Your task to perform on an android device: check out phone information Image 0: 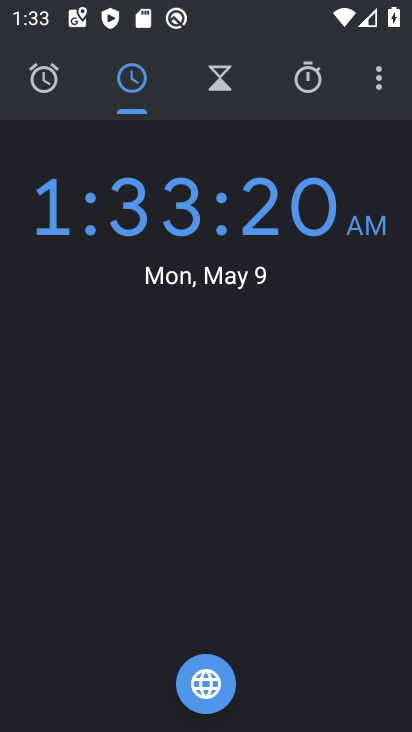
Step 0: press home button
Your task to perform on an android device: check out phone information Image 1: 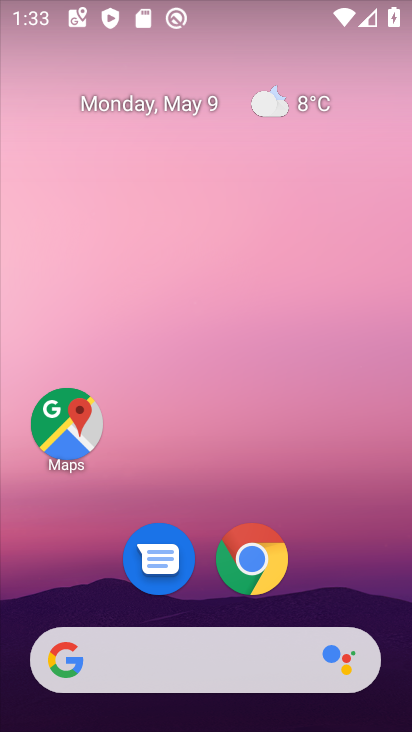
Step 1: drag from (298, 480) to (235, 46)
Your task to perform on an android device: check out phone information Image 2: 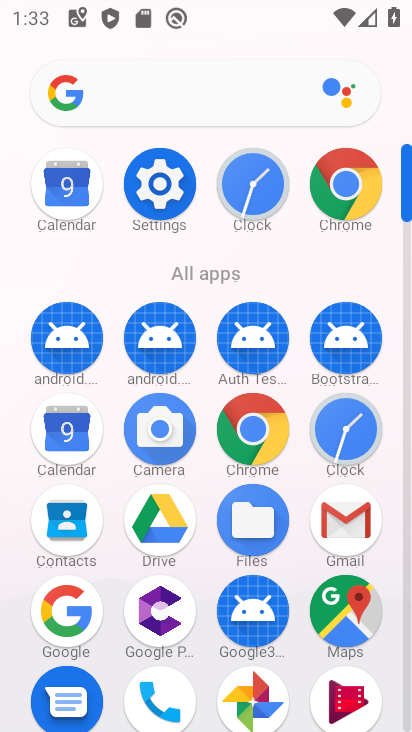
Step 2: click (161, 188)
Your task to perform on an android device: check out phone information Image 3: 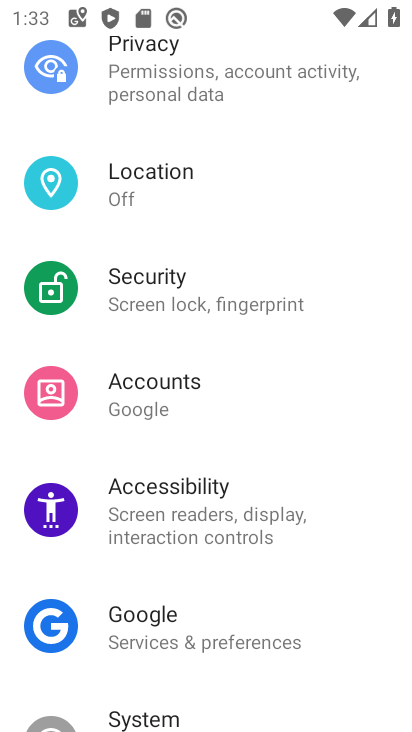
Step 3: drag from (209, 244) to (297, 609)
Your task to perform on an android device: check out phone information Image 4: 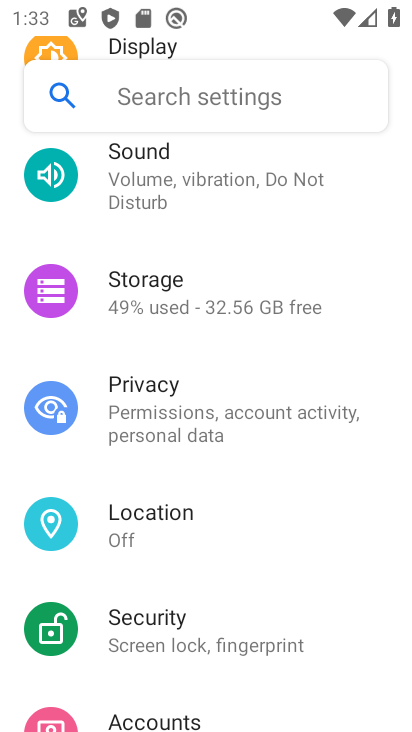
Step 4: drag from (213, 241) to (301, 613)
Your task to perform on an android device: check out phone information Image 5: 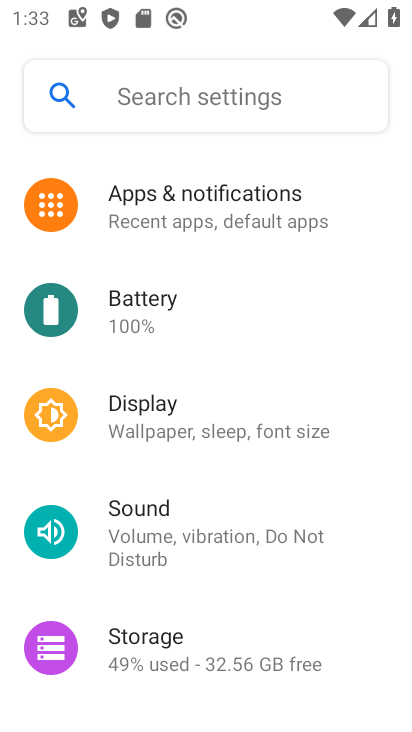
Step 5: drag from (209, 474) to (185, 194)
Your task to perform on an android device: check out phone information Image 6: 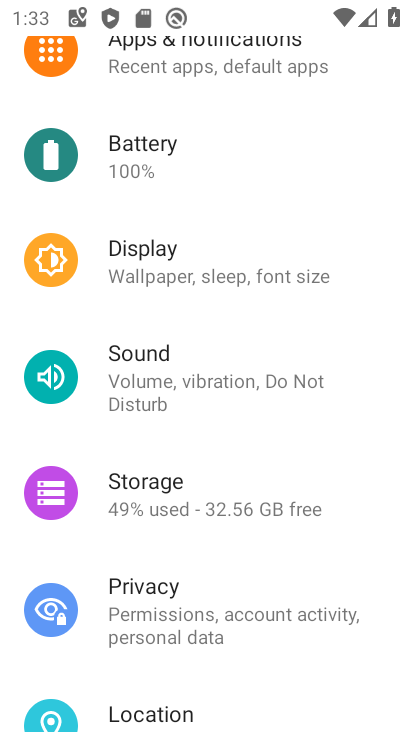
Step 6: drag from (239, 544) to (291, 12)
Your task to perform on an android device: check out phone information Image 7: 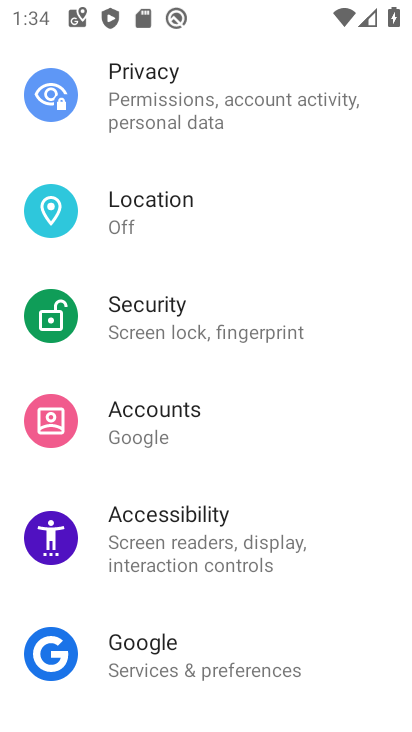
Step 7: drag from (250, 446) to (213, 141)
Your task to perform on an android device: check out phone information Image 8: 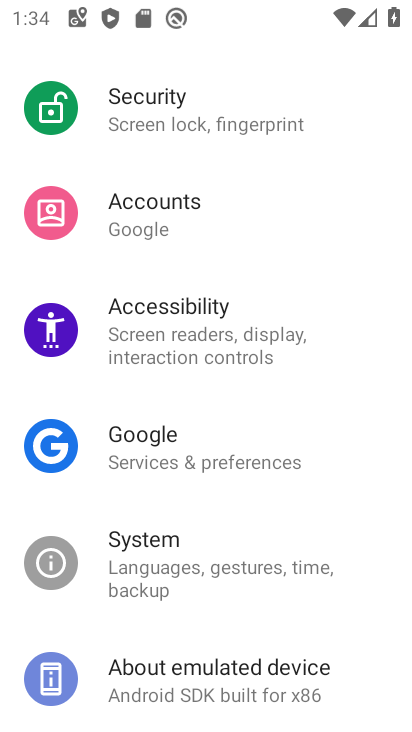
Step 8: drag from (212, 472) to (190, 146)
Your task to perform on an android device: check out phone information Image 9: 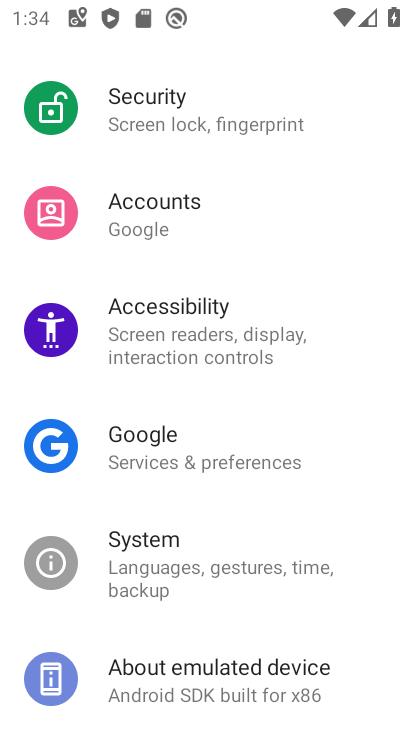
Step 9: click (180, 674)
Your task to perform on an android device: check out phone information Image 10: 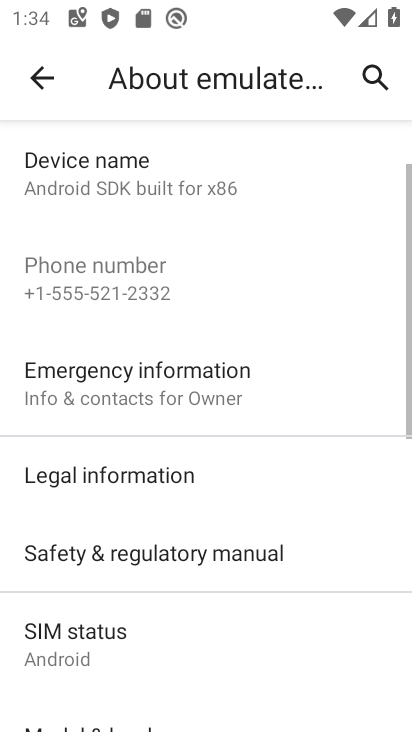
Step 10: task complete